Your task to perform on an android device: toggle sleep mode Image 0: 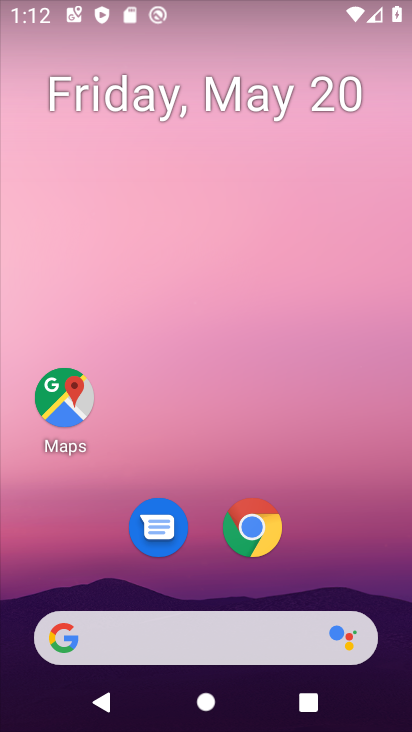
Step 0: press home button
Your task to perform on an android device: toggle sleep mode Image 1: 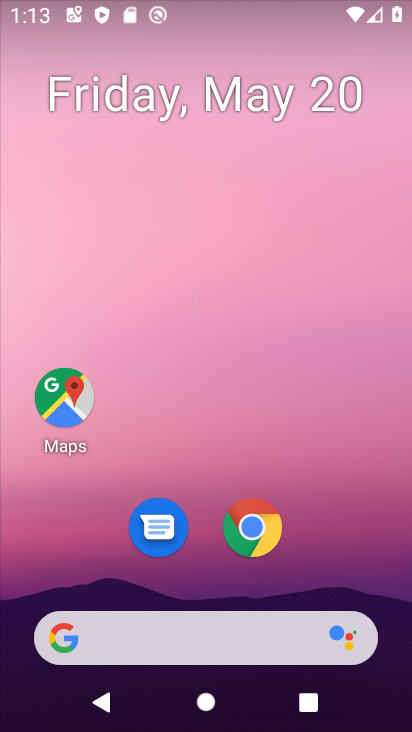
Step 1: drag from (183, 647) to (363, 179)
Your task to perform on an android device: toggle sleep mode Image 2: 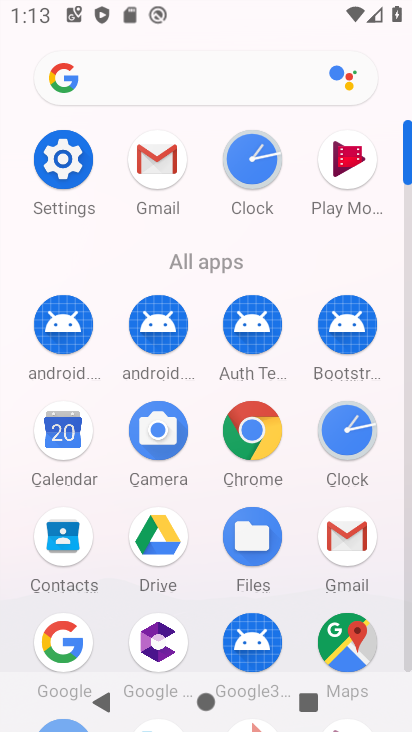
Step 2: click (70, 167)
Your task to perform on an android device: toggle sleep mode Image 3: 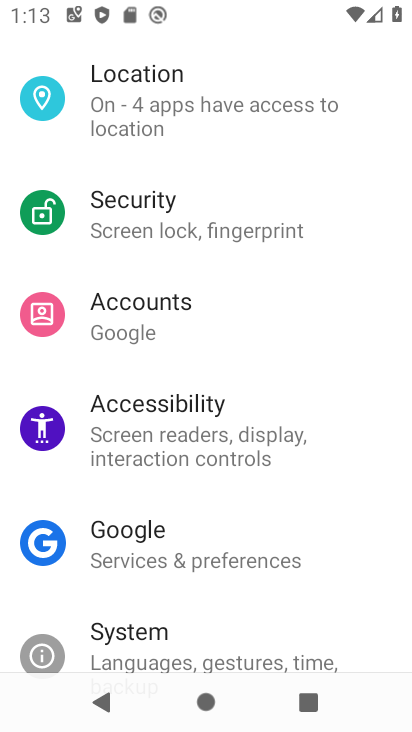
Step 3: drag from (319, 176) to (274, 554)
Your task to perform on an android device: toggle sleep mode Image 4: 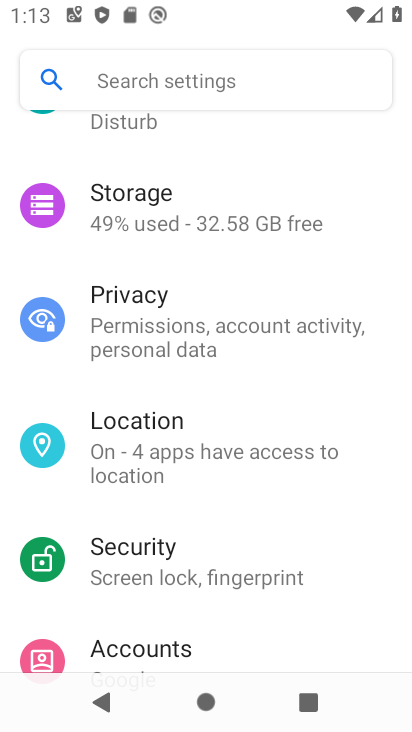
Step 4: drag from (269, 162) to (248, 559)
Your task to perform on an android device: toggle sleep mode Image 5: 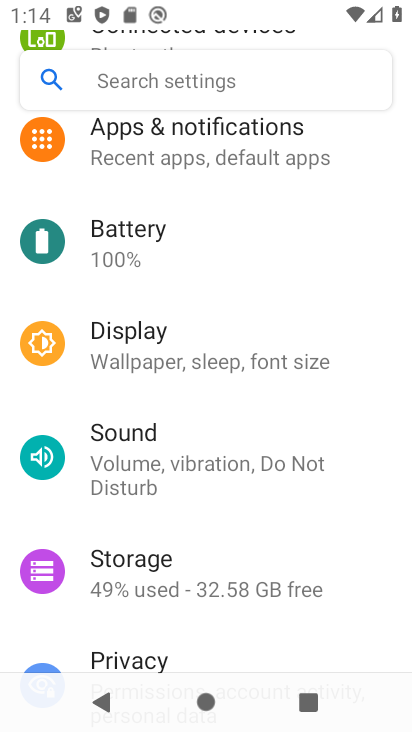
Step 5: click (188, 350)
Your task to perform on an android device: toggle sleep mode Image 6: 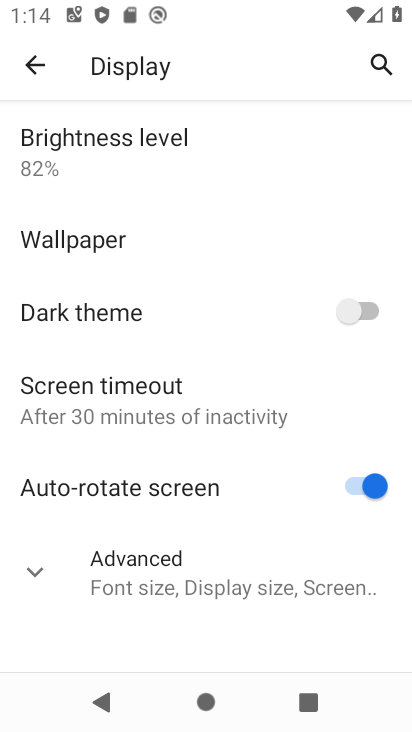
Step 6: task complete